Your task to perform on an android device: Go to CNN.com Image 0: 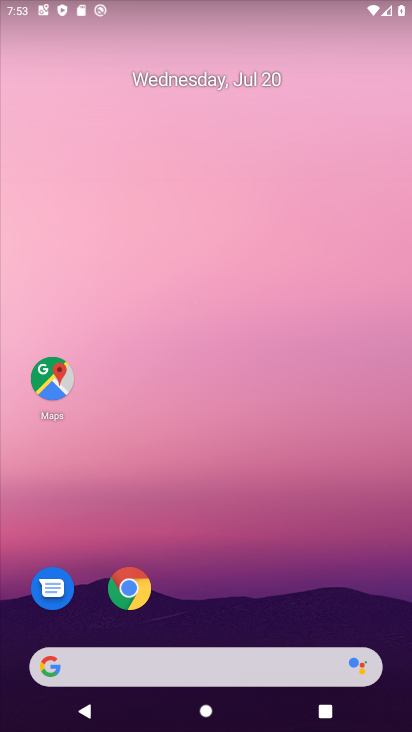
Step 0: click (99, 659)
Your task to perform on an android device: Go to CNN.com Image 1: 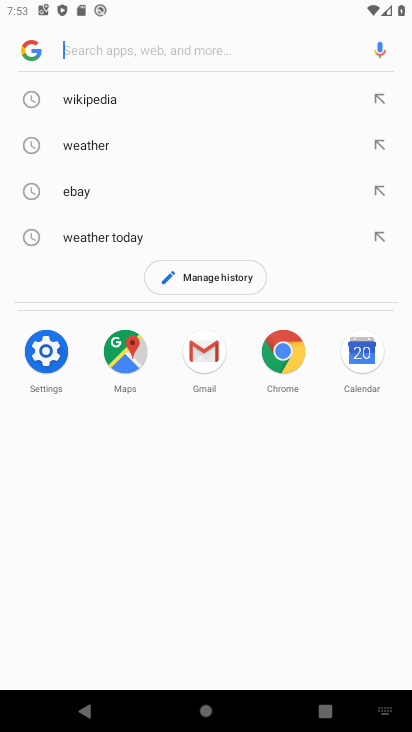
Step 1: type "cnn.com"
Your task to perform on an android device: Go to CNN.com Image 2: 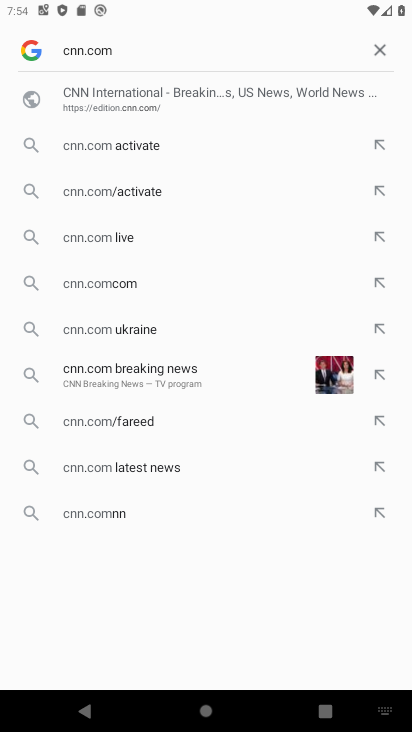
Step 2: click (145, 100)
Your task to perform on an android device: Go to CNN.com Image 3: 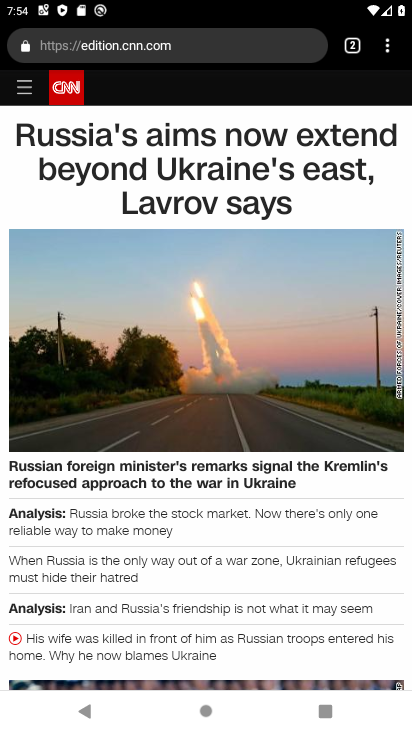
Step 3: task complete